Your task to perform on an android device: turn off improve location accuracy Image 0: 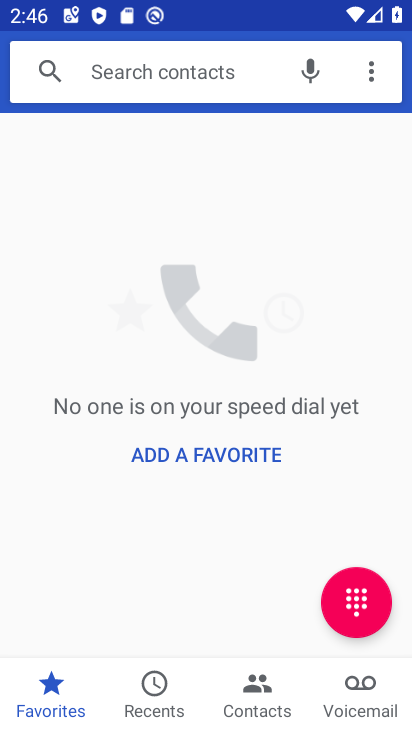
Step 0: press home button
Your task to perform on an android device: turn off improve location accuracy Image 1: 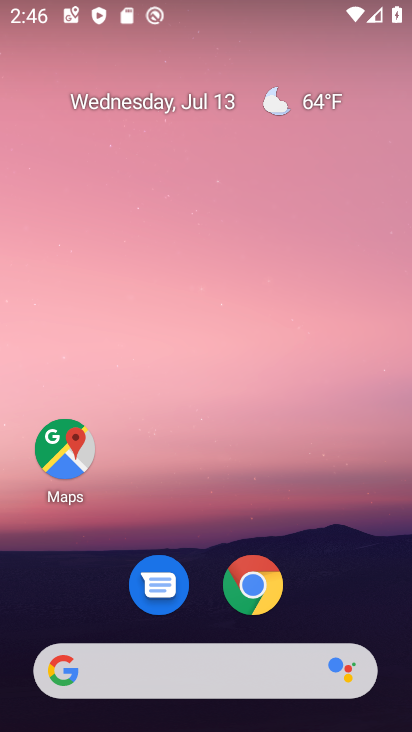
Step 1: drag from (167, 675) to (245, 51)
Your task to perform on an android device: turn off improve location accuracy Image 2: 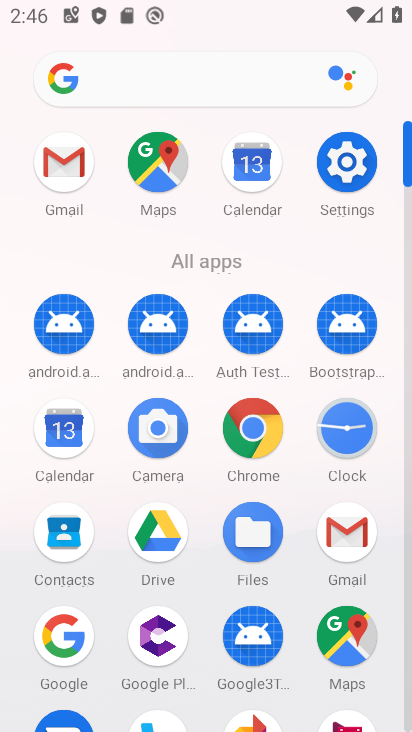
Step 2: click (341, 174)
Your task to perform on an android device: turn off improve location accuracy Image 3: 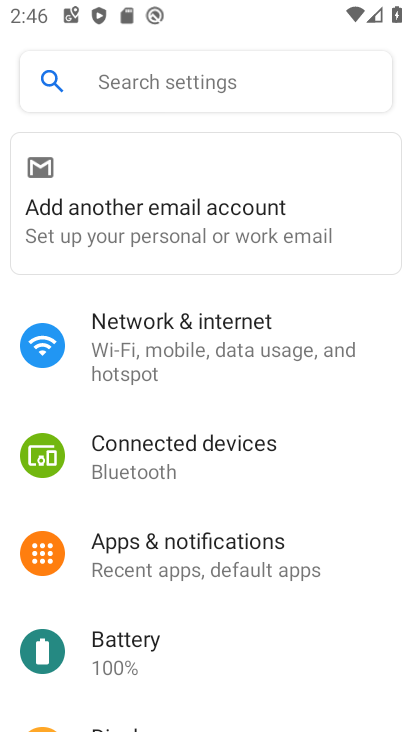
Step 3: drag from (256, 667) to (345, 113)
Your task to perform on an android device: turn off improve location accuracy Image 4: 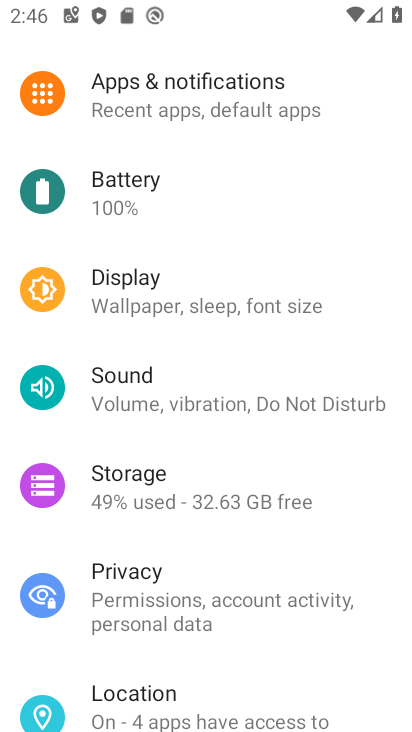
Step 4: click (152, 690)
Your task to perform on an android device: turn off improve location accuracy Image 5: 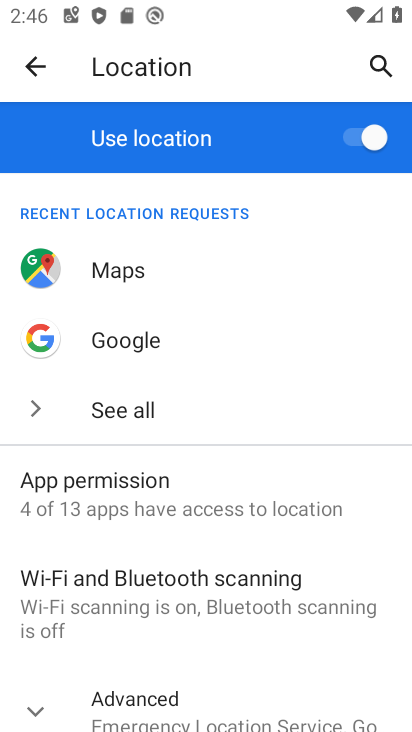
Step 5: drag from (208, 648) to (290, 246)
Your task to perform on an android device: turn off improve location accuracy Image 6: 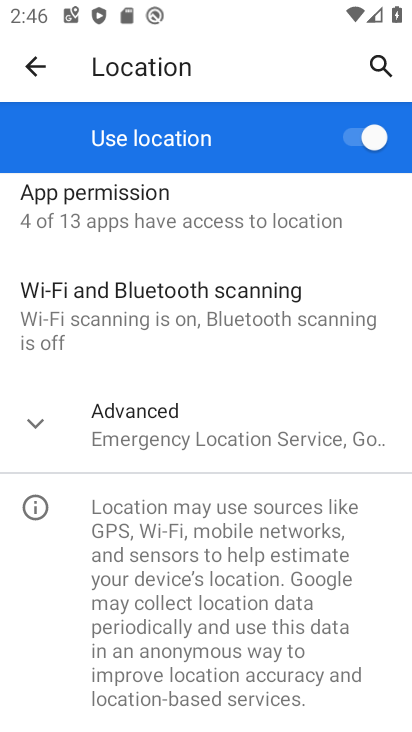
Step 6: click (149, 415)
Your task to perform on an android device: turn off improve location accuracy Image 7: 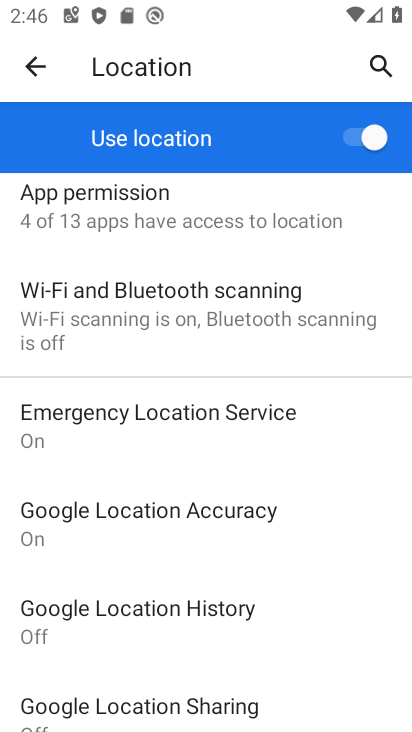
Step 7: click (167, 510)
Your task to perform on an android device: turn off improve location accuracy Image 8: 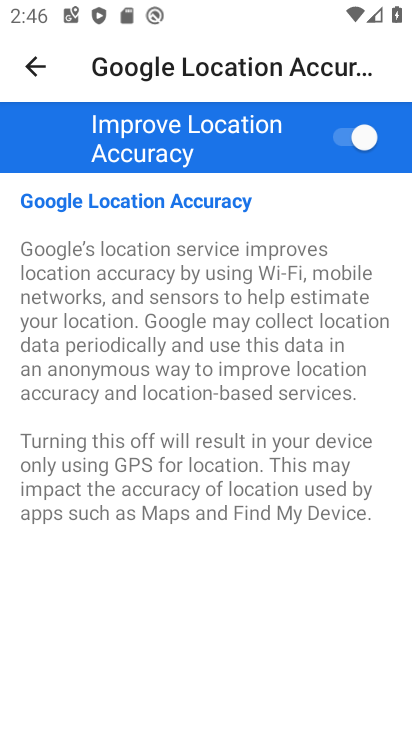
Step 8: click (348, 132)
Your task to perform on an android device: turn off improve location accuracy Image 9: 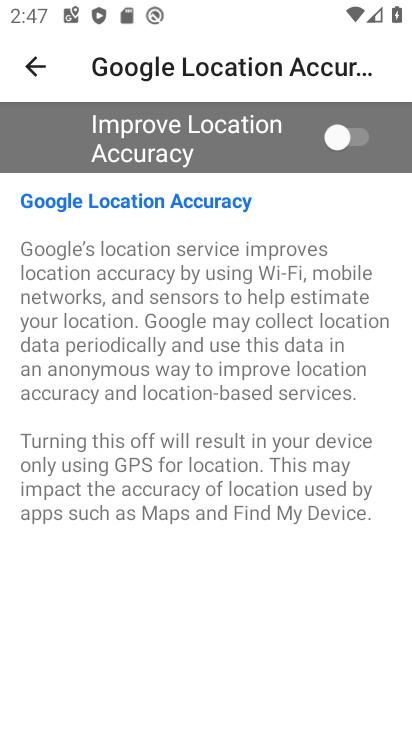
Step 9: task complete